Your task to perform on an android device: Open Wikipedia Image 0: 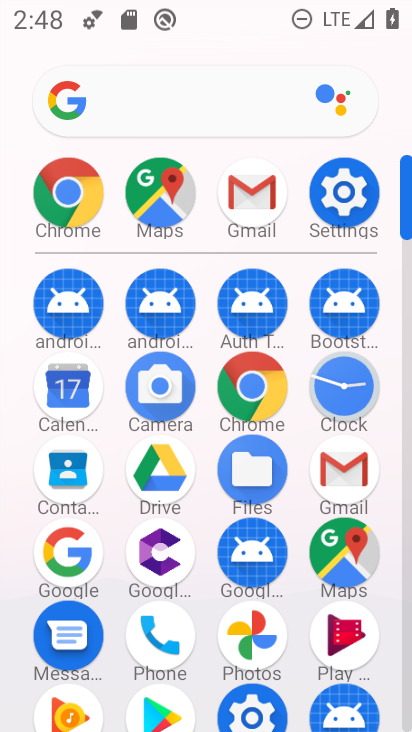
Step 0: press home button
Your task to perform on an android device: Open Wikipedia Image 1: 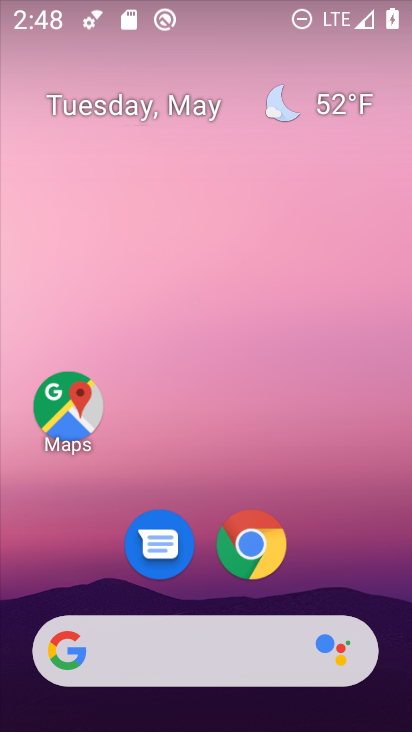
Step 1: drag from (332, 573) to (348, 92)
Your task to perform on an android device: Open Wikipedia Image 2: 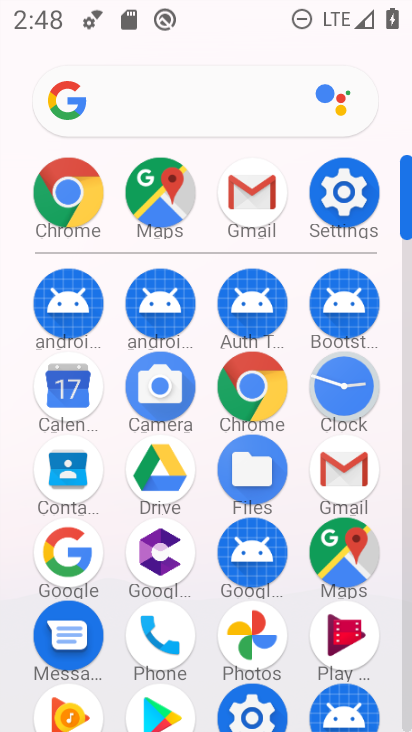
Step 2: click (265, 391)
Your task to perform on an android device: Open Wikipedia Image 3: 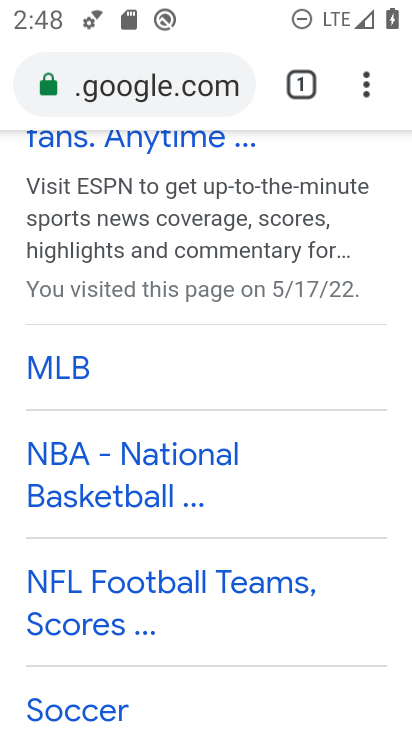
Step 3: click (176, 74)
Your task to perform on an android device: Open Wikipedia Image 4: 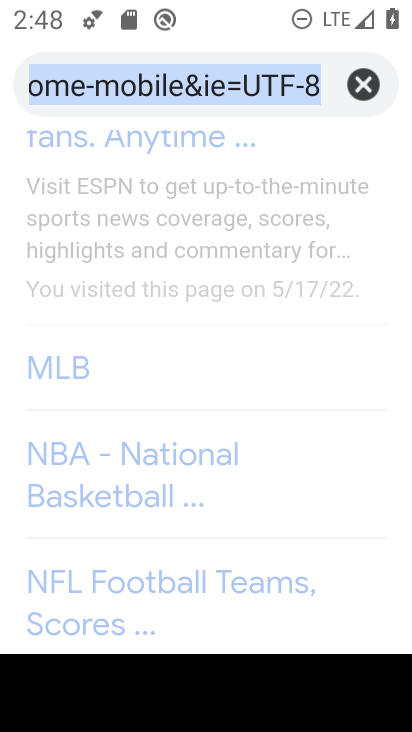
Step 4: press back button
Your task to perform on an android device: Open Wikipedia Image 5: 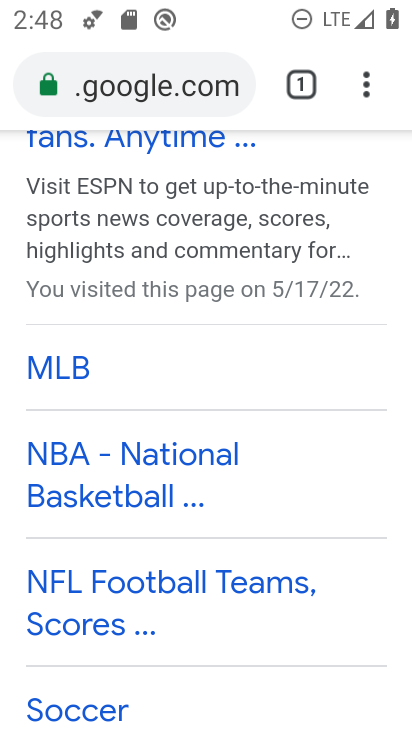
Step 5: press back button
Your task to perform on an android device: Open Wikipedia Image 6: 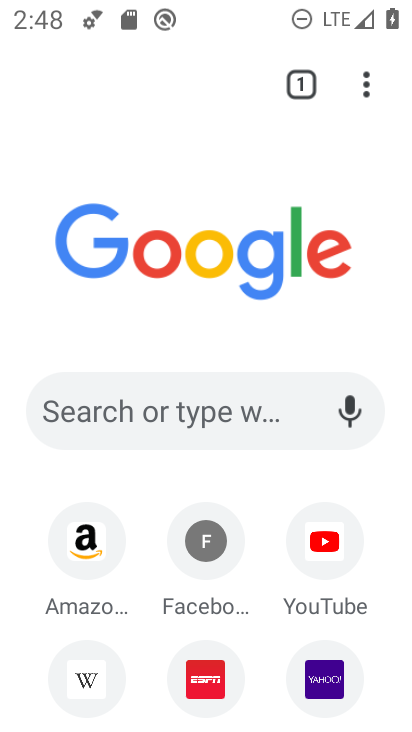
Step 6: drag from (266, 628) to (270, 452)
Your task to perform on an android device: Open Wikipedia Image 7: 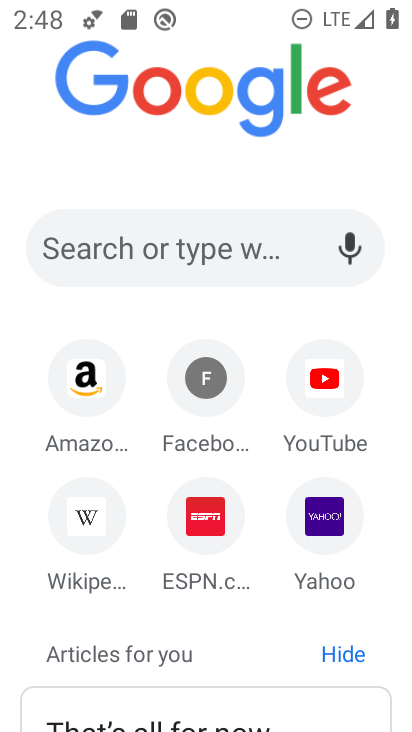
Step 7: click (76, 531)
Your task to perform on an android device: Open Wikipedia Image 8: 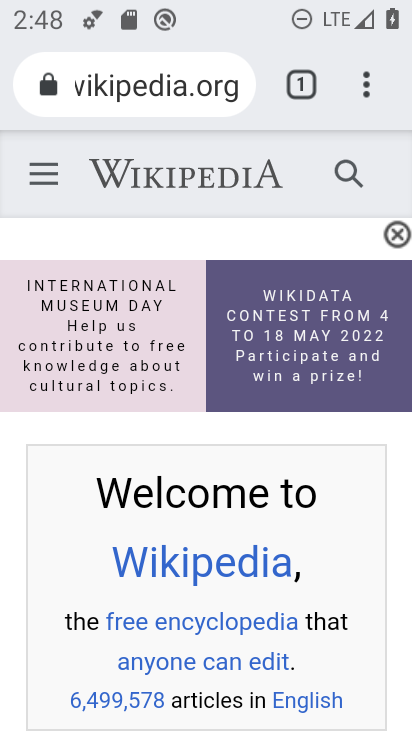
Step 8: click (76, 528)
Your task to perform on an android device: Open Wikipedia Image 9: 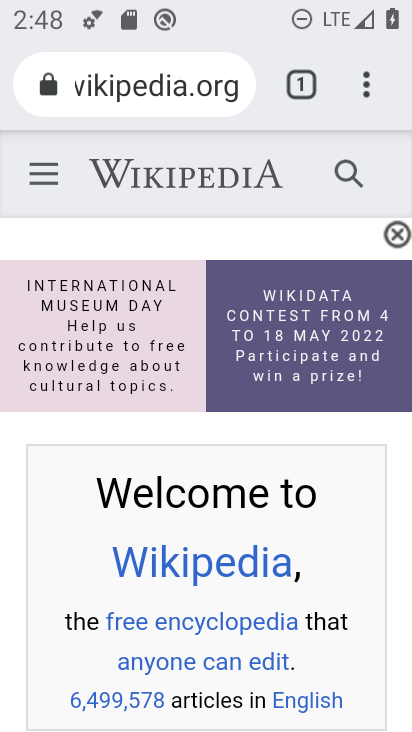
Step 9: task complete